Your task to perform on an android device: read, delete, or share a saved page in the chrome app Image 0: 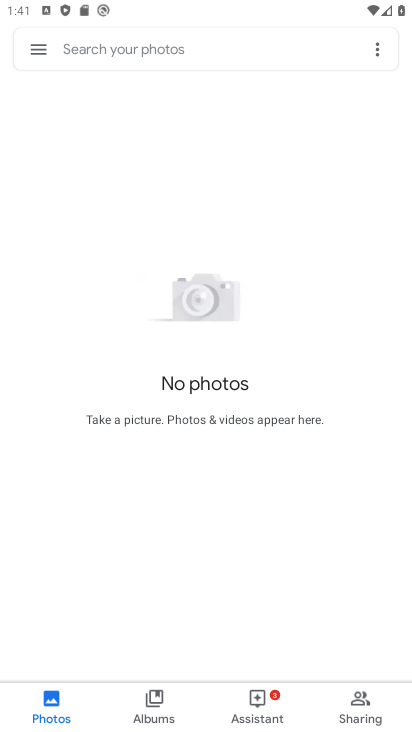
Step 0: press home button
Your task to perform on an android device: read, delete, or share a saved page in the chrome app Image 1: 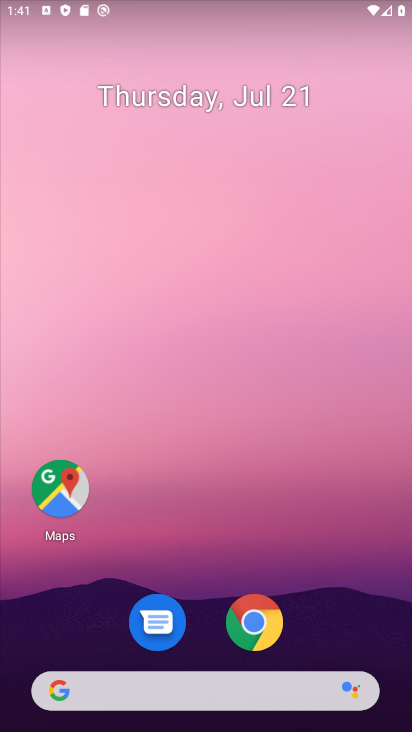
Step 1: click (239, 642)
Your task to perform on an android device: read, delete, or share a saved page in the chrome app Image 2: 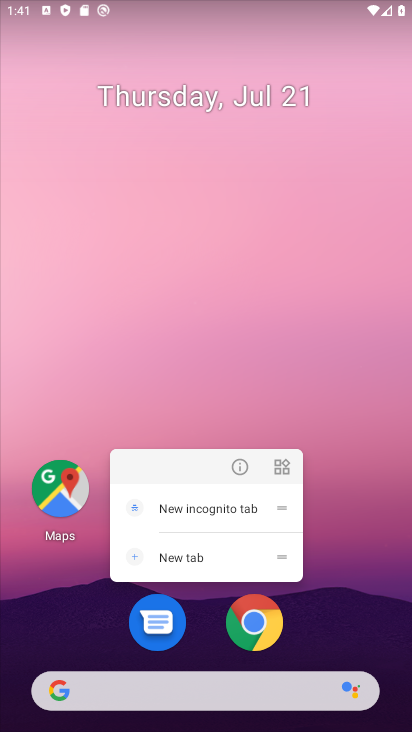
Step 2: click (249, 635)
Your task to perform on an android device: read, delete, or share a saved page in the chrome app Image 3: 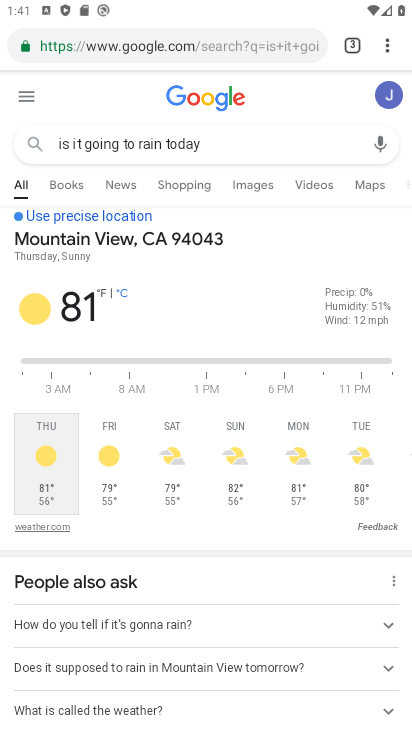
Step 3: click (384, 55)
Your task to perform on an android device: read, delete, or share a saved page in the chrome app Image 4: 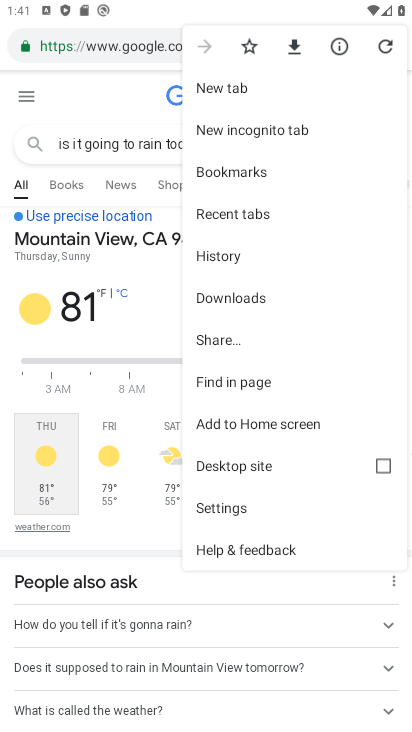
Step 4: click (231, 342)
Your task to perform on an android device: read, delete, or share a saved page in the chrome app Image 5: 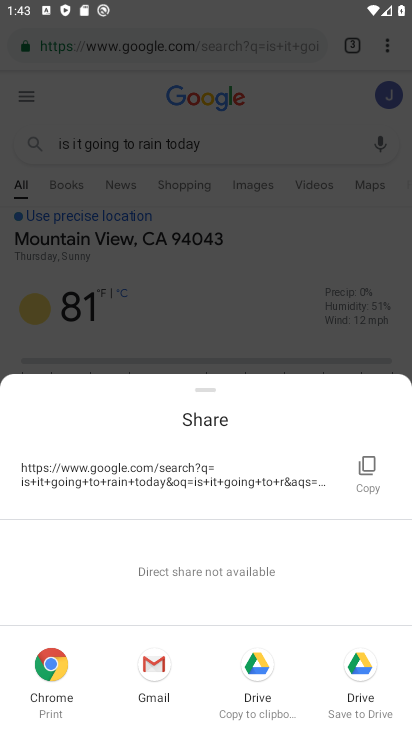
Step 5: task complete